Your task to perform on an android device: open the mobile data screen to see how much data has been used Image 0: 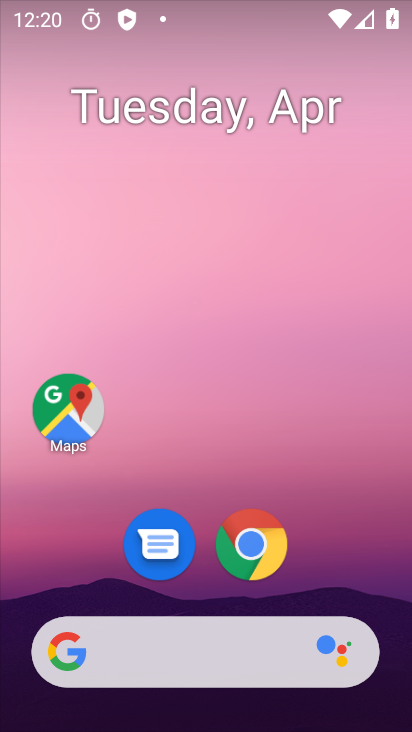
Step 0: drag from (410, 575) to (408, 495)
Your task to perform on an android device: open the mobile data screen to see how much data has been used Image 1: 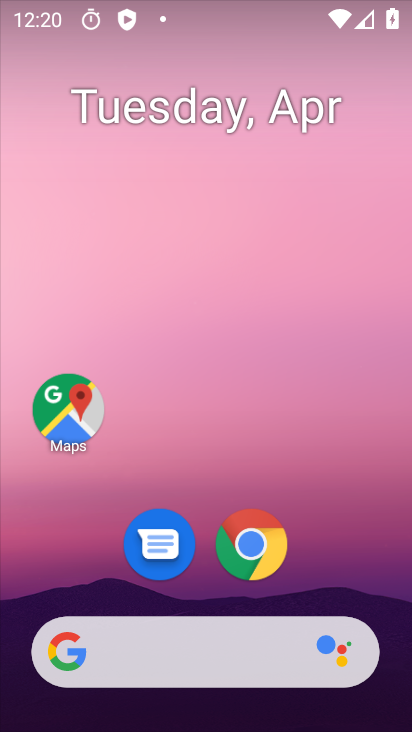
Step 1: drag from (386, 572) to (396, 45)
Your task to perform on an android device: open the mobile data screen to see how much data has been used Image 2: 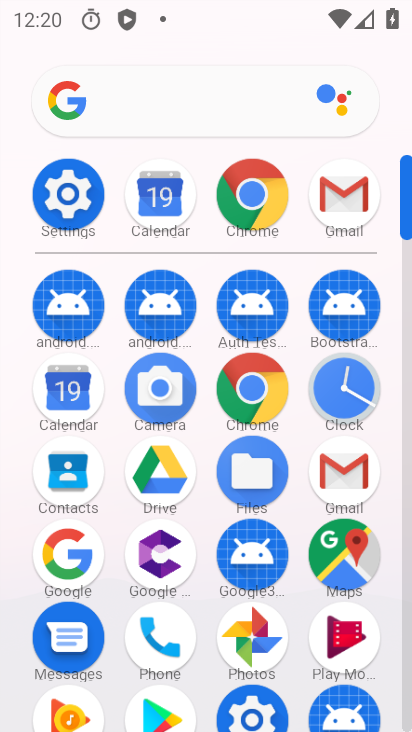
Step 2: click (64, 193)
Your task to perform on an android device: open the mobile data screen to see how much data has been used Image 3: 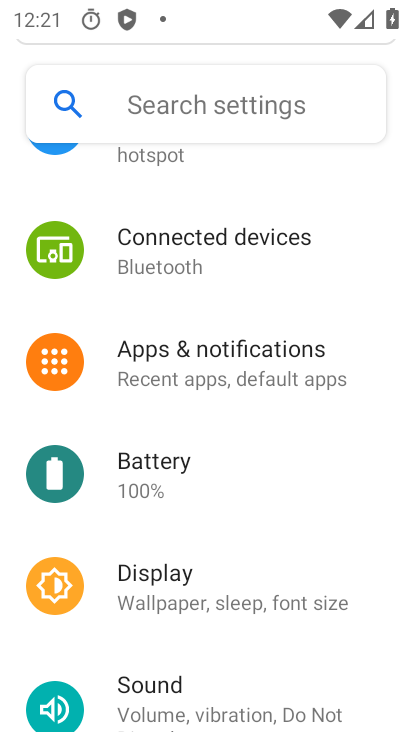
Step 3: drag from (381, 196) to (398, 585)
Your task to perform on an android device: open the mobile data screen to see how much data has been used Image 4: 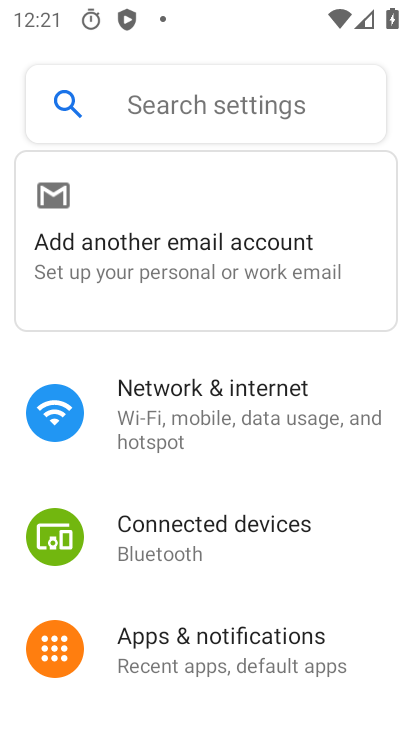
Step 4: click (219, 423)
Your task to perform on an android device: open the mobile data screen to see how much data has been used Image 5: 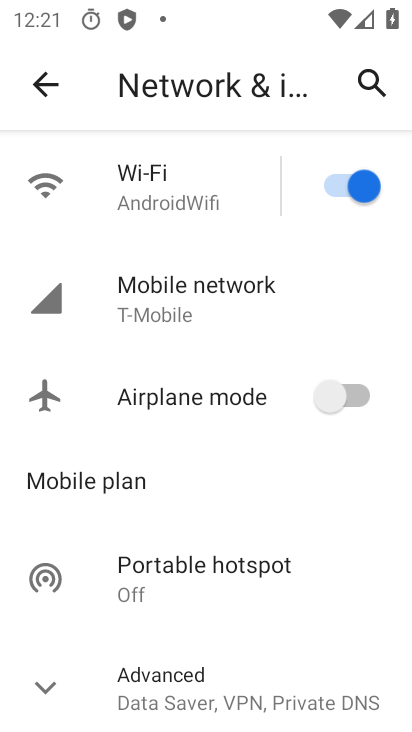
Step 5: click (159, 322)
Your task to perform on an android device: open the mobile data screen to see how much data has been used Image 6: 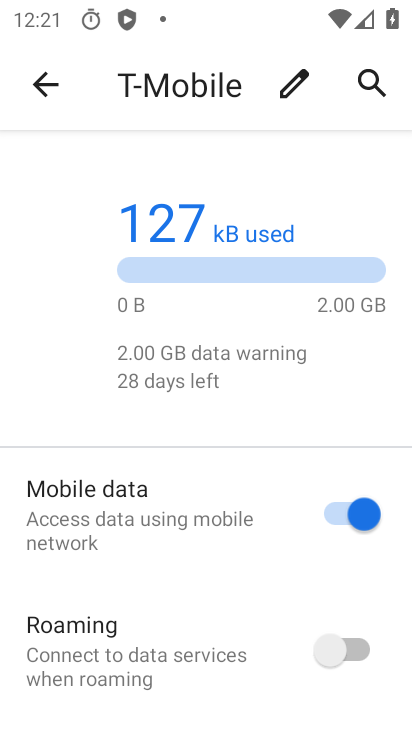
Step 6: drag from (219, 590) to (224, 320)
Your task to perform on an android device: open the mobile data screen to see how much data has been used Image 7: 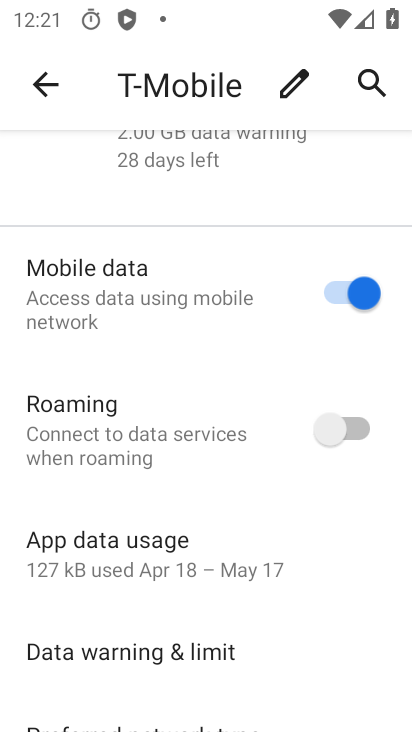
Step 7: click (134, 541)
Your task to perform on an android device: open the mobile data screen to see how much data has been used Image 8: 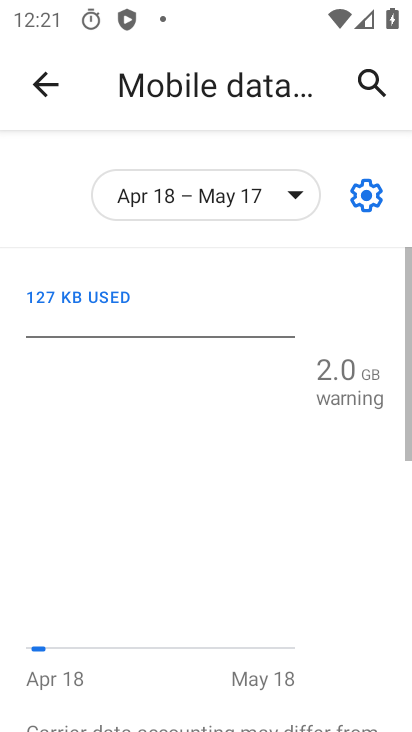
Step 8: task complete